Your task to perform on an android device: Search for Mexican restaurants on Maps Image 0: 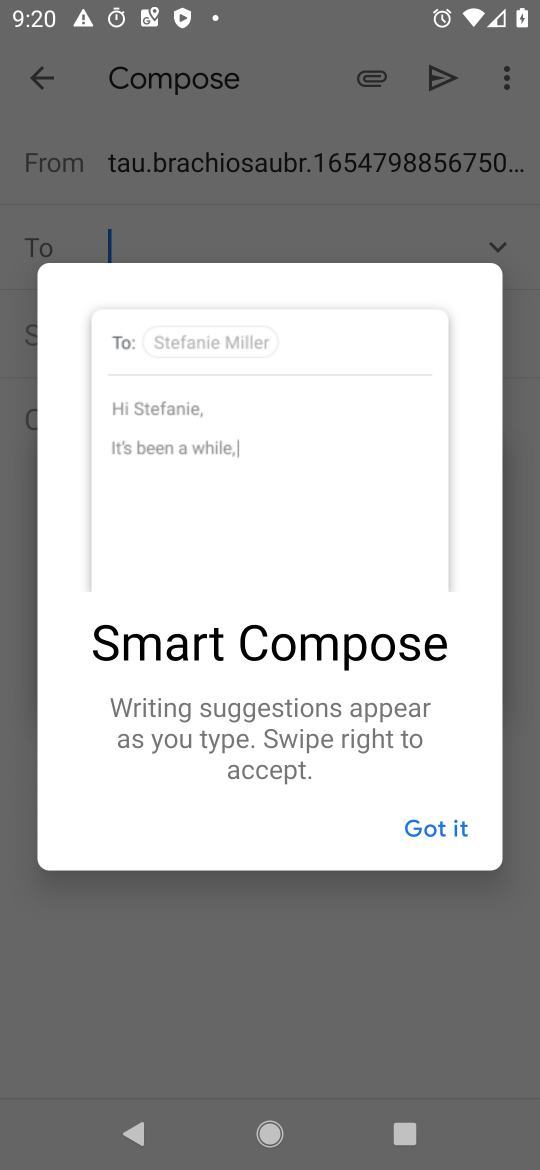
Step 0: press home button
Your task to perform on an android device: Search for Mexican restaurants on Maps Image 1: 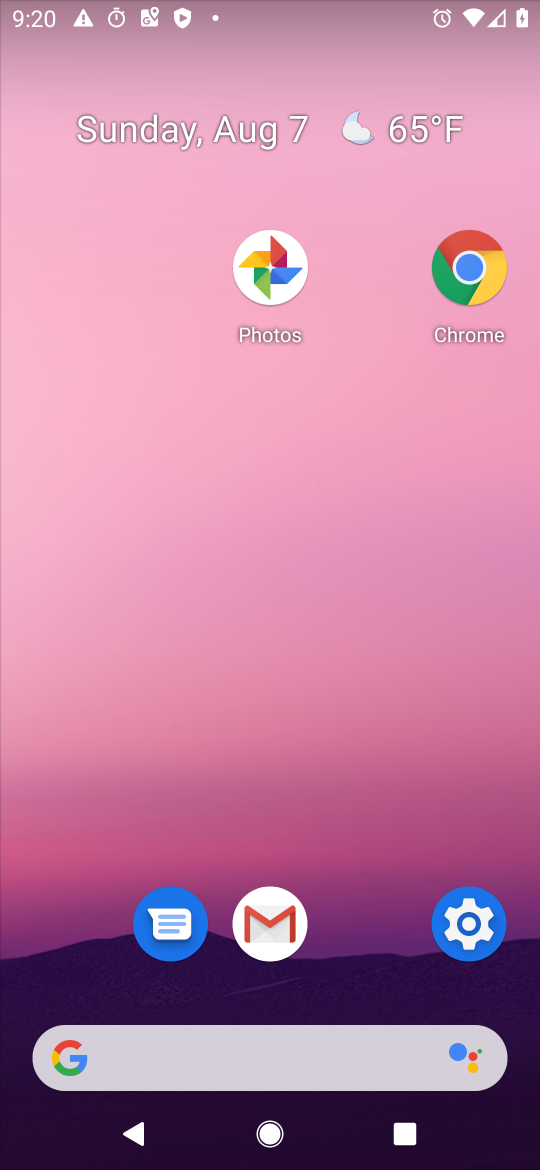
Step 1: drag from (393, 1033) to (337, 190)
Your task to perform on an android device: Search for Mexican restaurants on Maps Image 2: 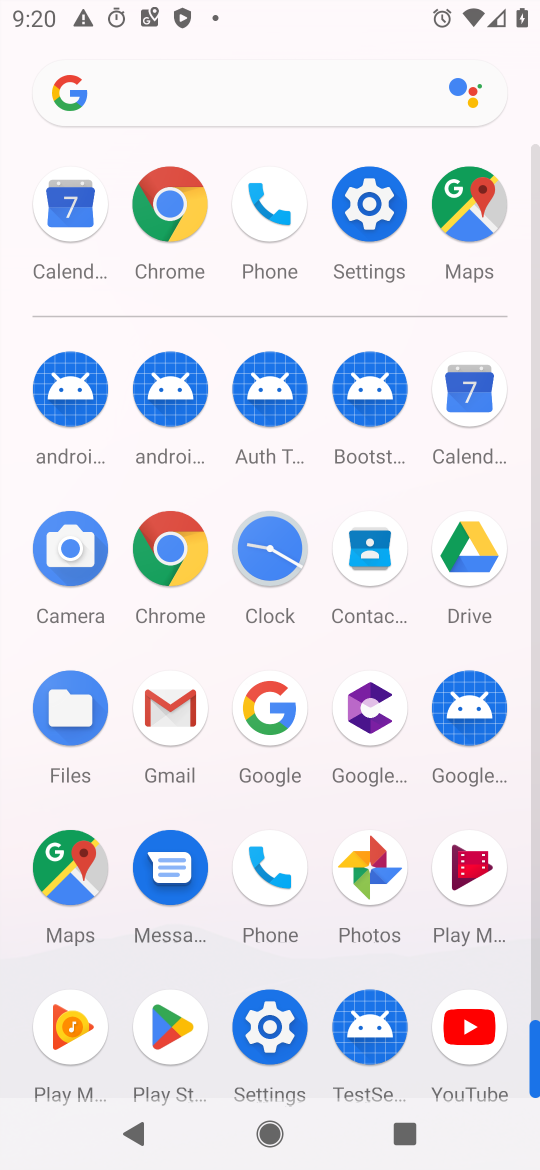
Step 2: click (456, 223)
Your task to perform on an android device: Search for Mexican restaurants on Maps Image 3: 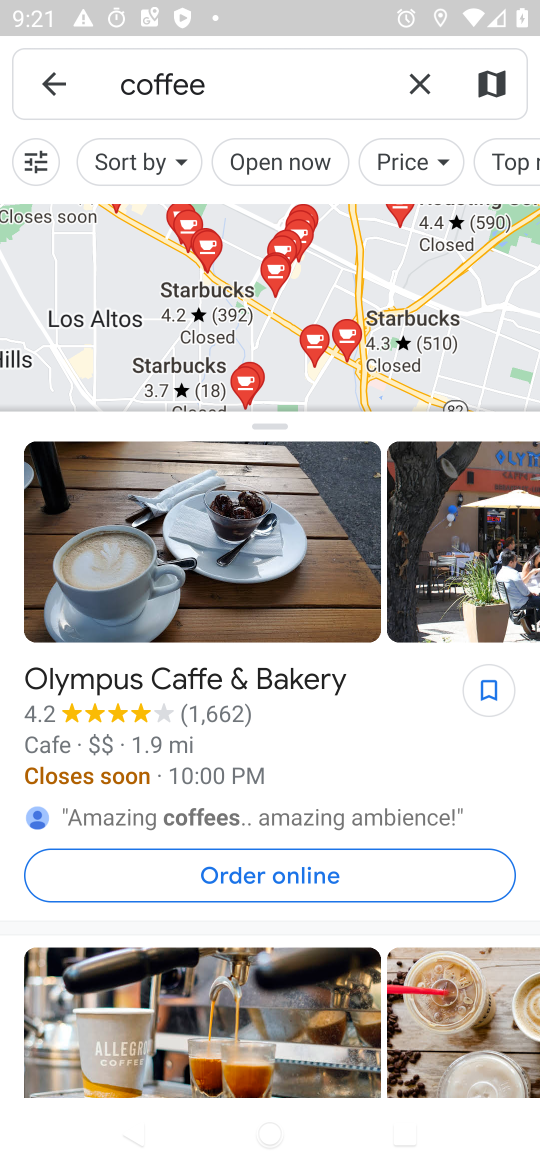
Step 3: click (417, 78)
Your task to perform on an android device: Search for Mexican restaurants on Maps Image 4: 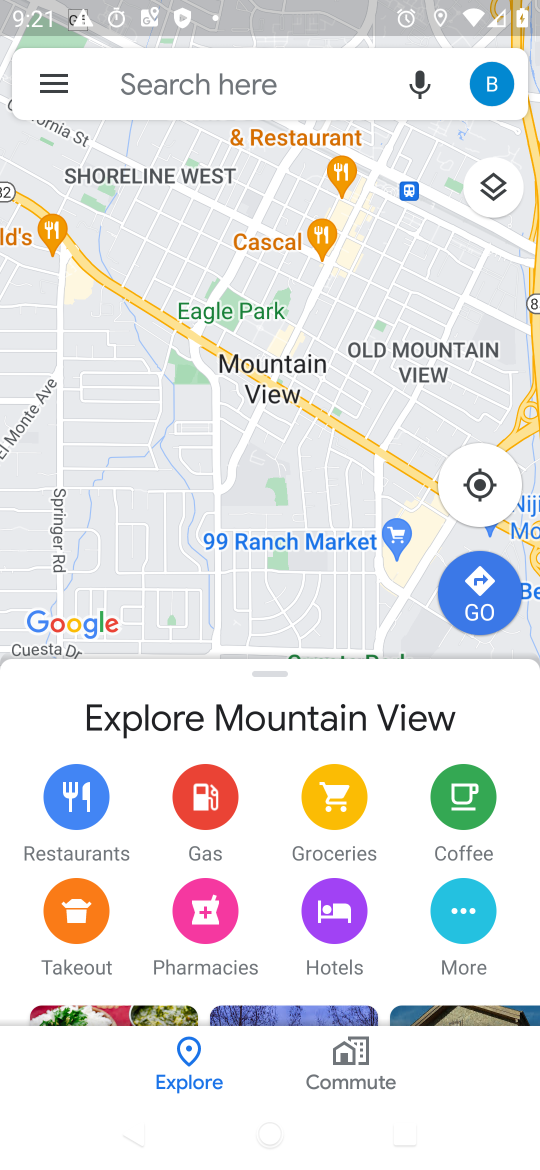
Step 4: click (173, 81)
Your task to perform on an android device: Search for Mexican restaurants on Maps Image 5: 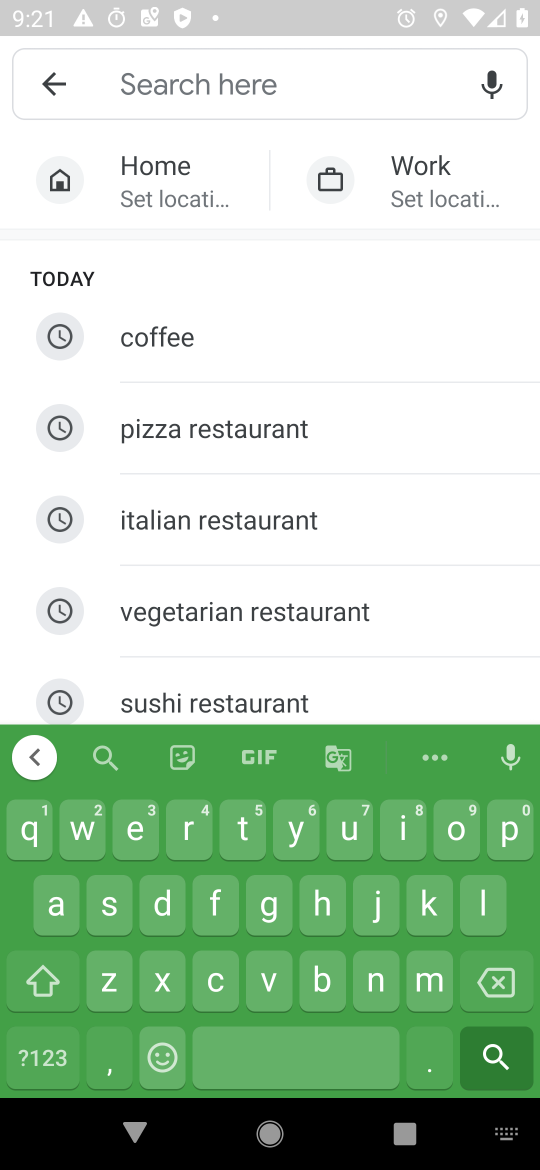
Step 5: click (436, 982)
Your task to perform on an android device: Search for Mexican restaurants on Maps Image 6: 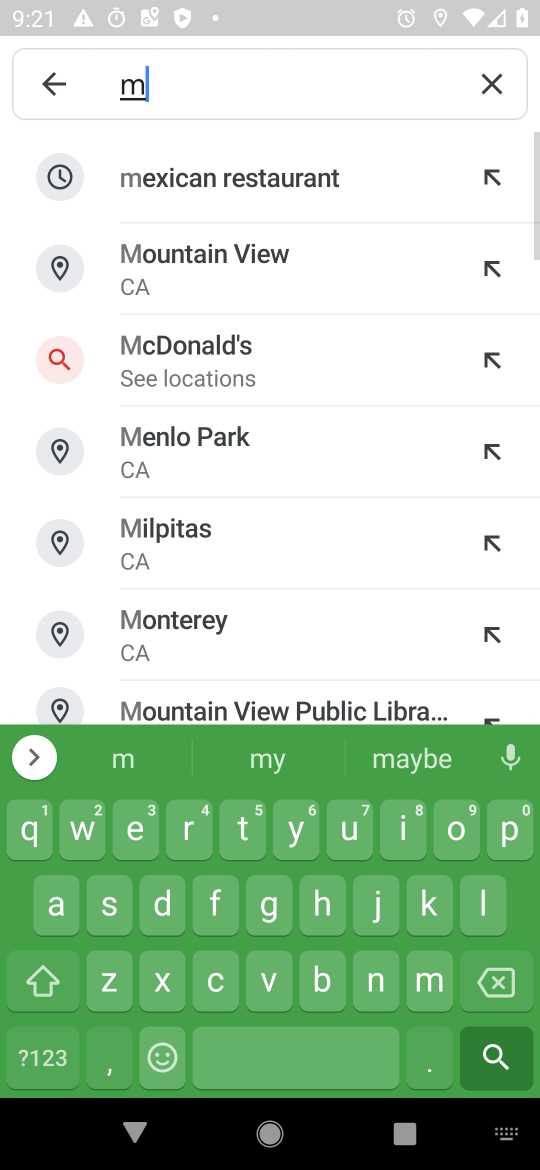
Step 6: click (245, 188)
Your task to perform on an android device: Search for Mexican restaurants on Maps Image 7: 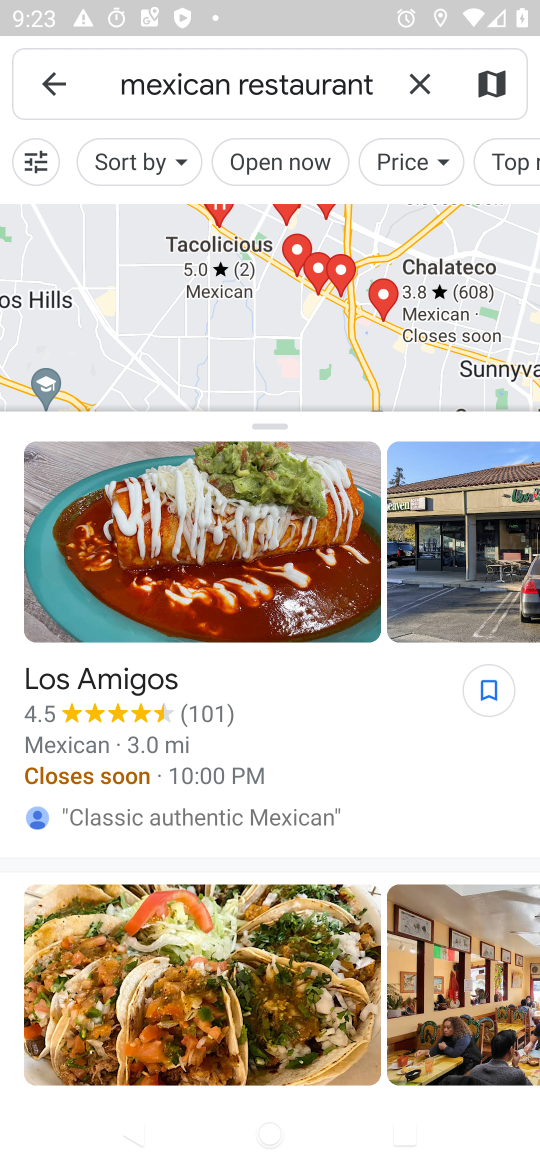
Step 7: task complete